Your task to perform on an android device: toggle notifications settings in the gmail app Image 0: 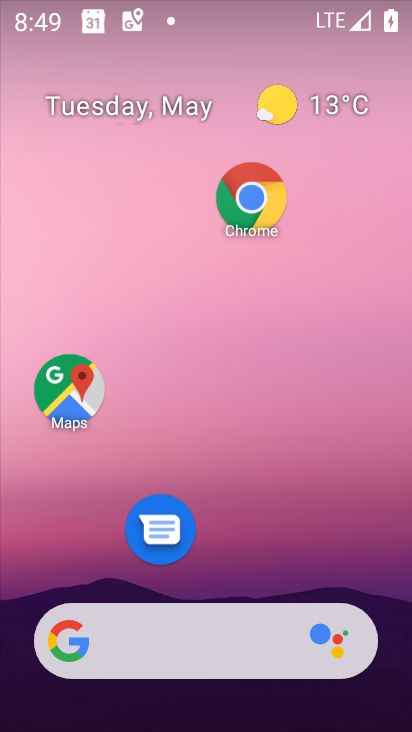
Step 0: drag from (216, 575) to (240, 114)
Your task to perform on an android device: toggle notifications settings in the gmail app Image 1: 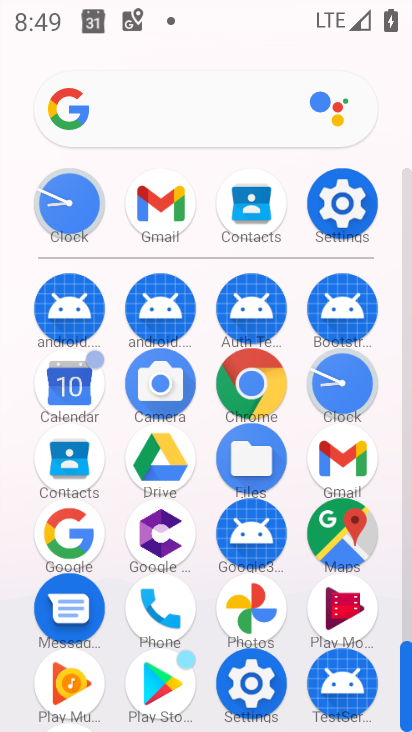
Step 1: click (321, 202)
Your task to perform on an android device: toggle notifications settings in the gmail app Image 2: 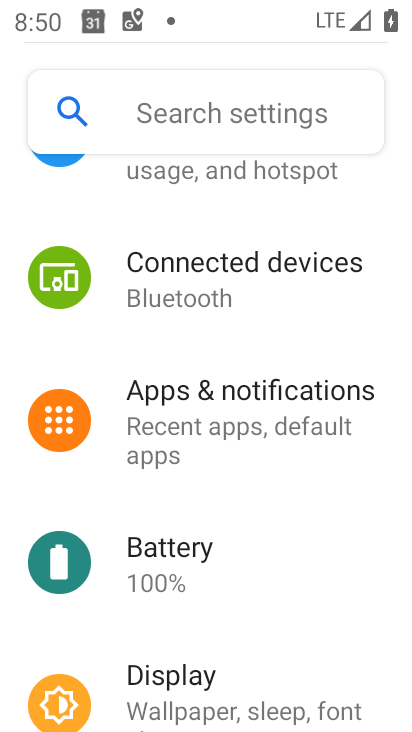
Step 2: press home button
Your task to perform on an android device: toggle notifications settings in the gmail app Image 3: 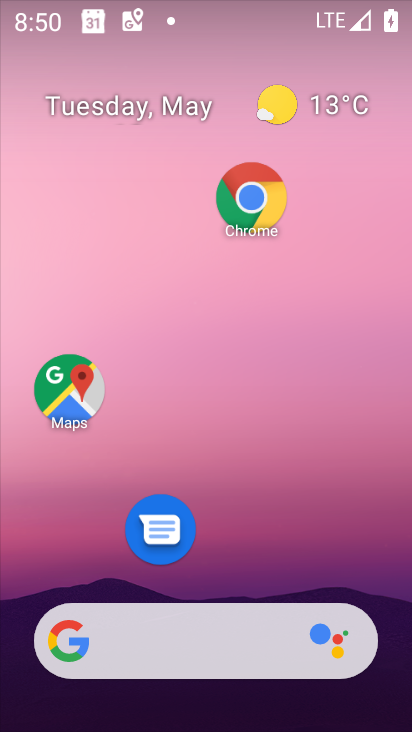
Step 3: drag from (275, 520) to (255, 203)
Your task to perform on an android device: toggle notifications settings in the gmail app Image 4: 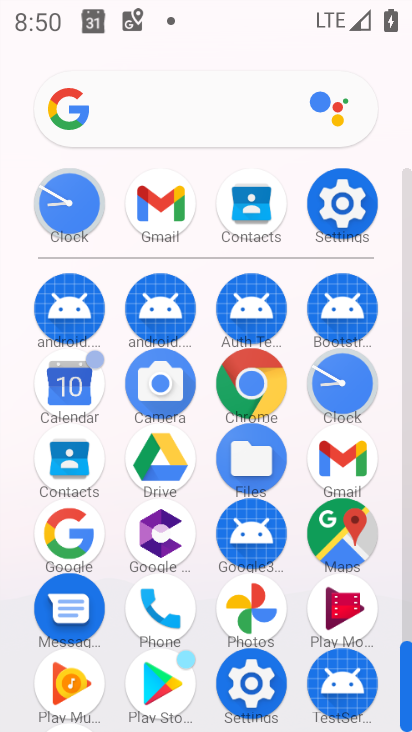
Step 4: click (329, 449)
Your task to perform on an android device: toggle notifications settings in the gmail app Image 5: 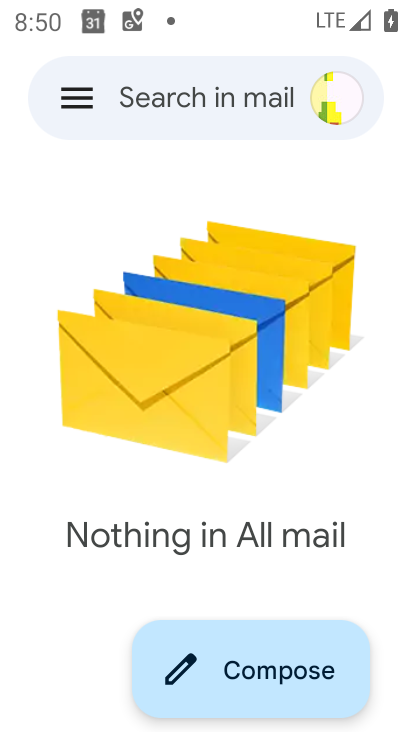
Step 5: click (83, 109)
Your task to perform on an android device: toggle notifications settings in the gmail app Image 6: 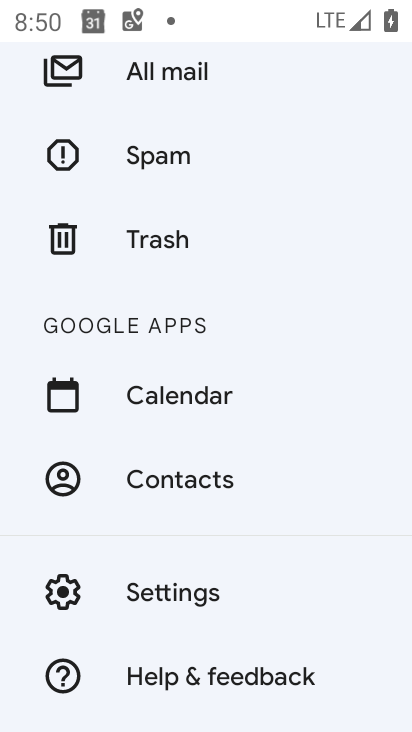
Step 6: click (152, 582)
Your task to perform on an android device: toggle notifications settings in the gmail app Image 7: 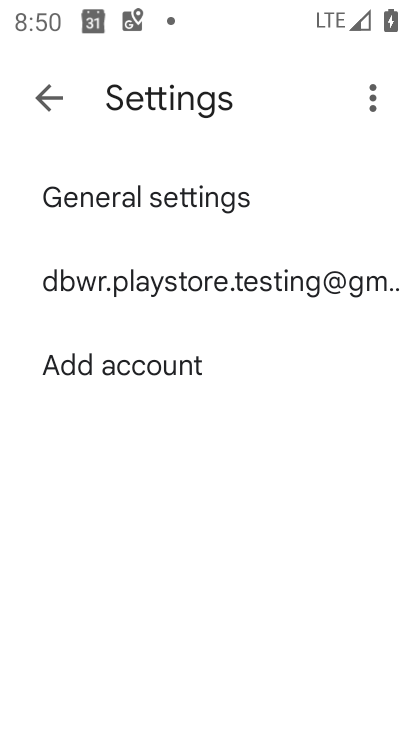
Step 7: click (210, 214)
Your task to perform on an android device: toggle notifications settings in the gmail app Image 8: 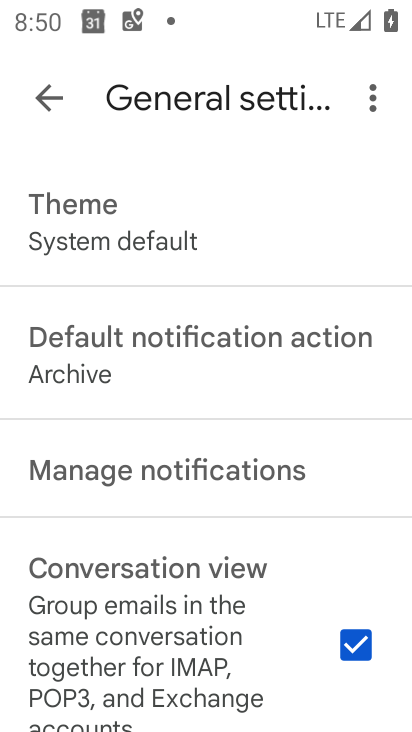
Step 8: click (144, 455)
Your task to perform on an android device: toggle notifications settings in the gmail app Image 9: 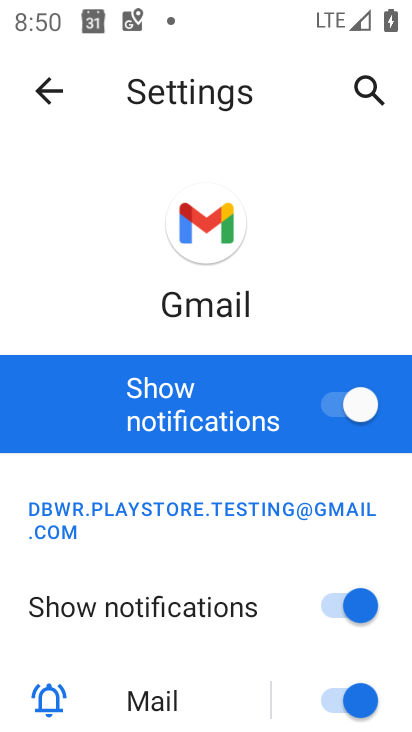
Step 9: click (290, 414)
Your task to perform on an android device: toggle notifications settings in the gmail app Image 10: 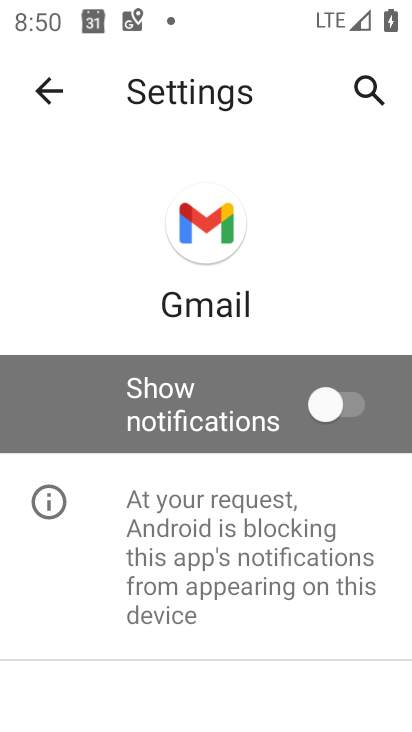
Step 10: task complete